Your task to perform on an android device: toggle sleep mode Image 0: 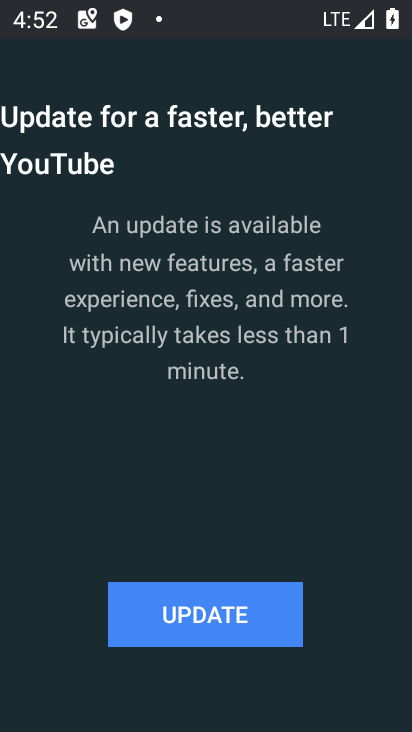
Step 0: press home button
Your task to perform on an android device: toggle sleep mode Image 1: 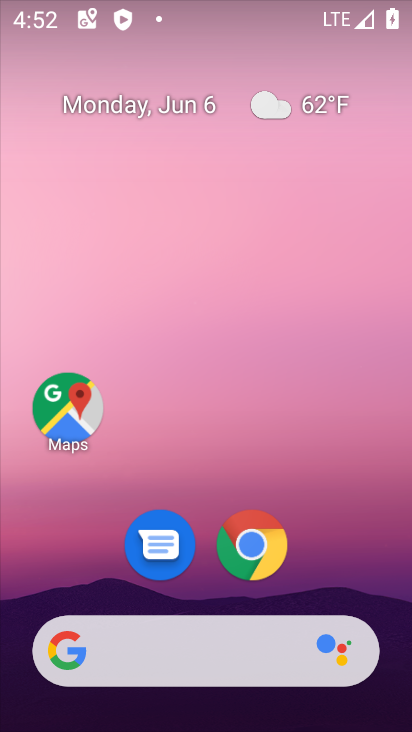
Step 1: drag from (212, 724) to (214, 98)
Your task to perform on an android device: toggle sleep mode Image 2: 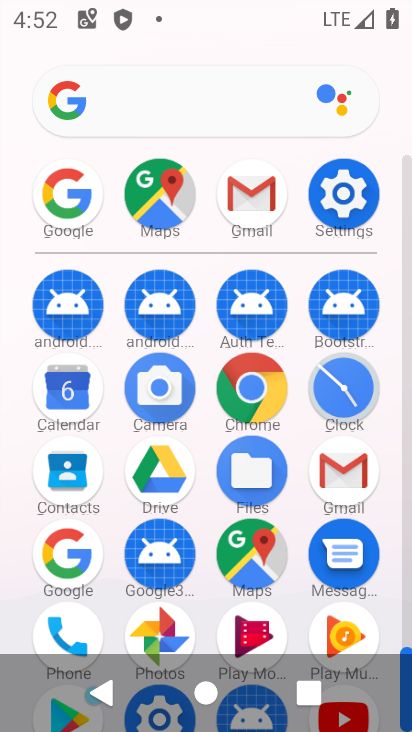
Step 2: click (347, 187)
Your task to perform on an android device: toggle sleep mode Image 3: 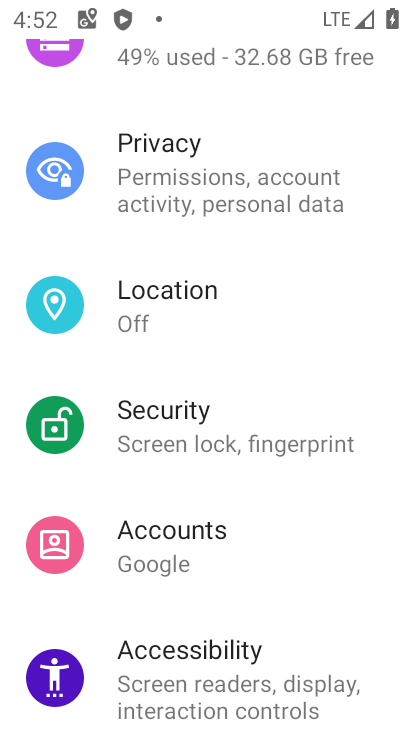
Step 3: drag from (155, 707) to (164, 264)
Your task to perform on an android device: toggle sleep mode Image 4: 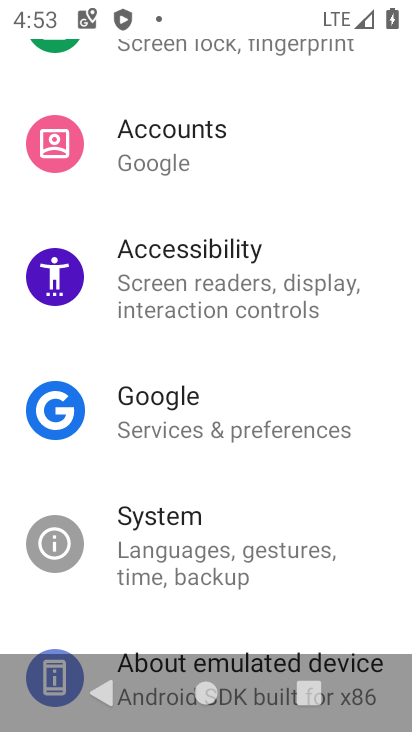
Step 4: drag from (261, 165) to (273, 546)
Your task to perform on an android device: toggle sleep mode Image 5: 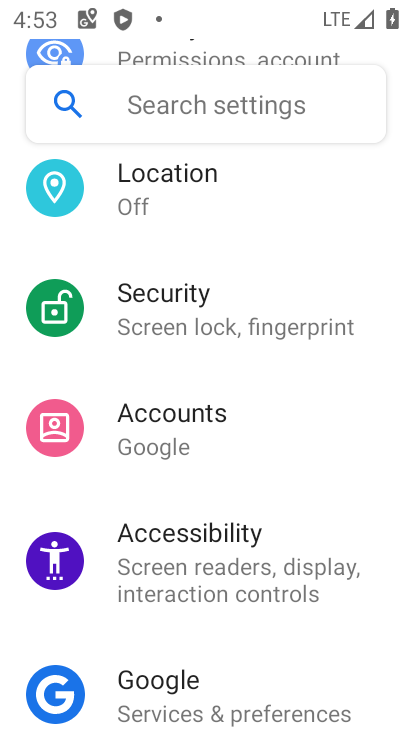
Step 5: drag from (260, 196) to (264, 592)
Your task to perform on an android device: toggle sleep mode Image 6: 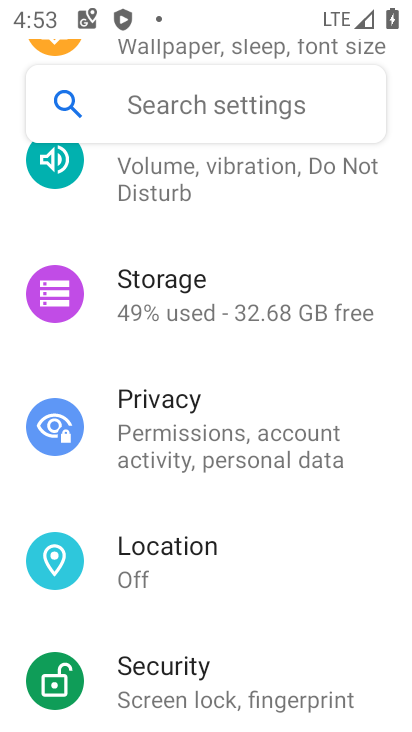
Step 6: drag from (243, 187) to (245, 567)
Your task to perform on an android device: toggle sleep mode Image 7: 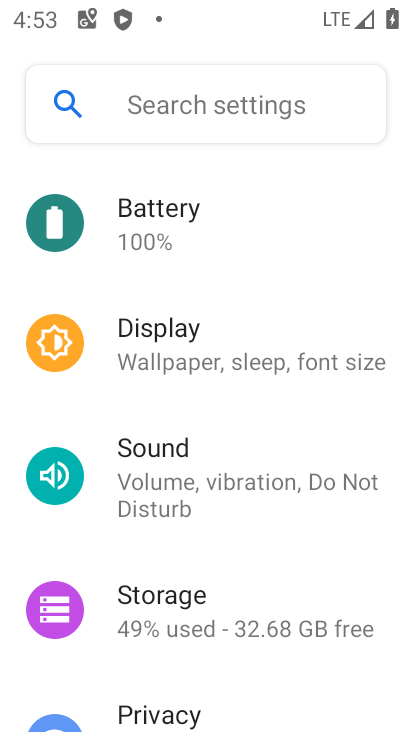
Step 7: drag from (227, 216) to (237, 452)
Your task to perform on an android device: toggle sleep mode Image 8: 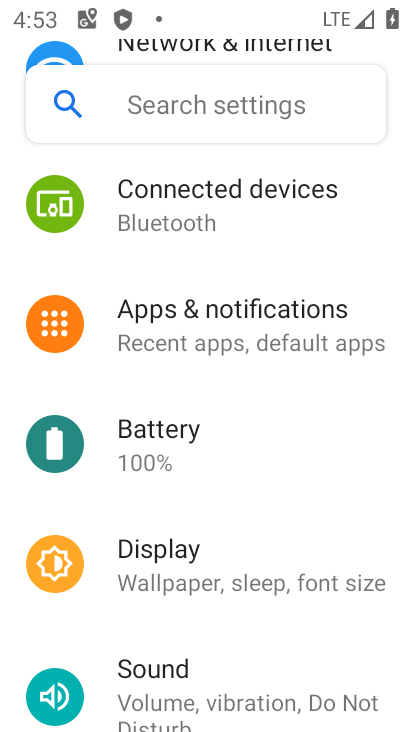
Step 8: click (220, 583)
Your task to perform on an android device: toggle sleep mode Image 9: 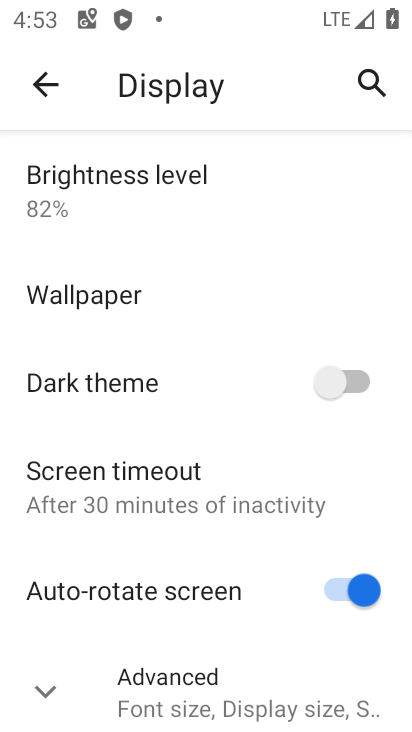
Step 9: task complete